Your task to perform on an android device: turn on notifications settings in the gmail app Image 0: 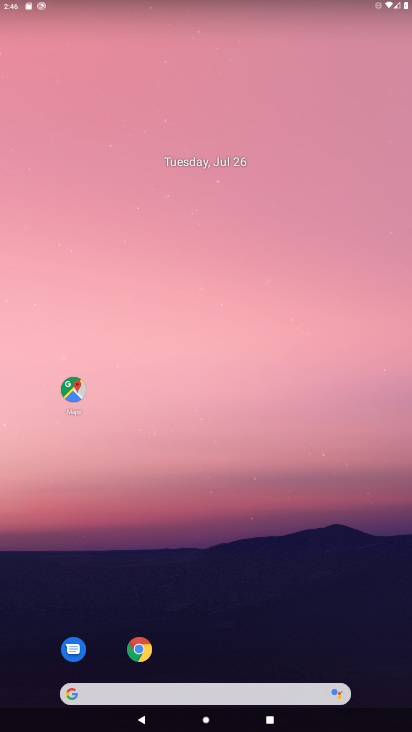
Step 0: drag from (198, 683) to (301, 169)
Your task to perform on an android device: turn on notifications settings in the gmail app Image 1: 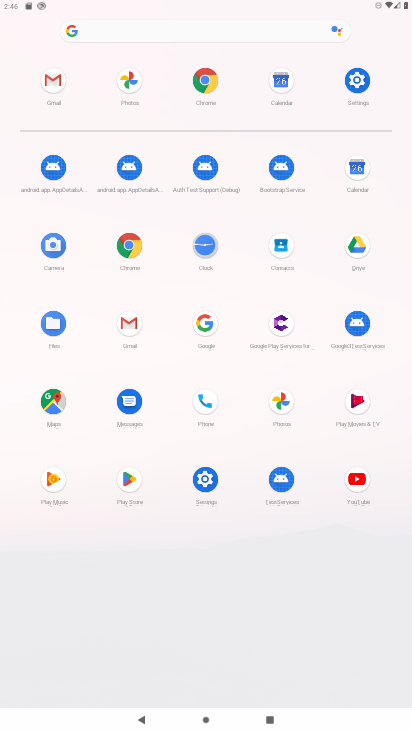
Step 1: click (122, 322)
Your task to perform on an android device: turn on notifications settings in the gmail app Image 2: 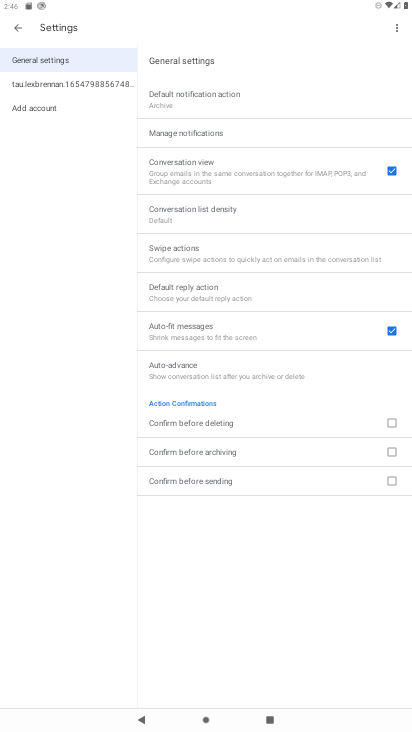
Step 2: click (80, 85)
Your task to perform on an android device: turn on notifications settings in the gmail app Image 3: 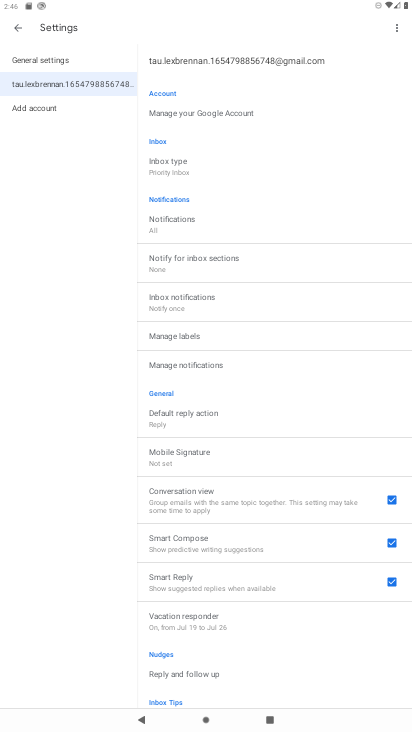
Step 3: click (232, 364)
Your task to perform on an android device: turn on notifications settings in the gmail app Image 4: 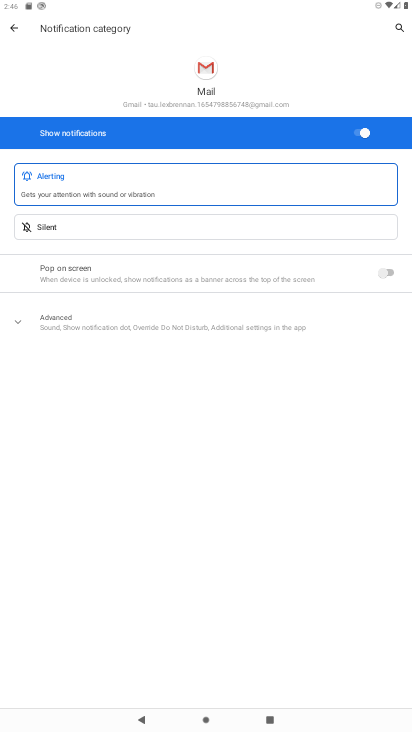
Step 4: task complete